Your task to perform on an android device: Go to Android settings Image 0: 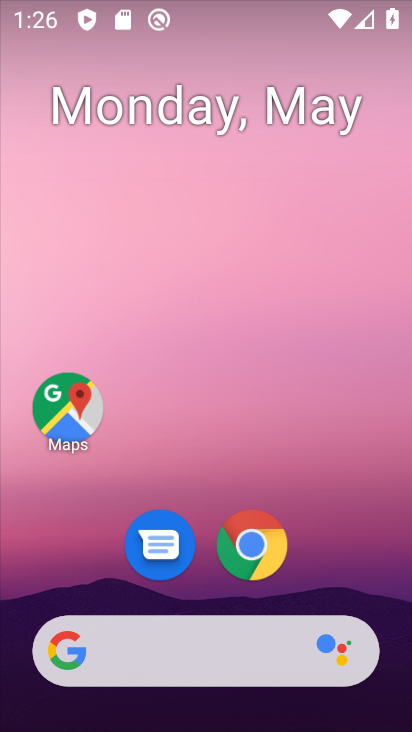
Step 0: drag from (196, 715) to (198, 101)
Your task to perform on an android device: Go to Android settings Image 1: 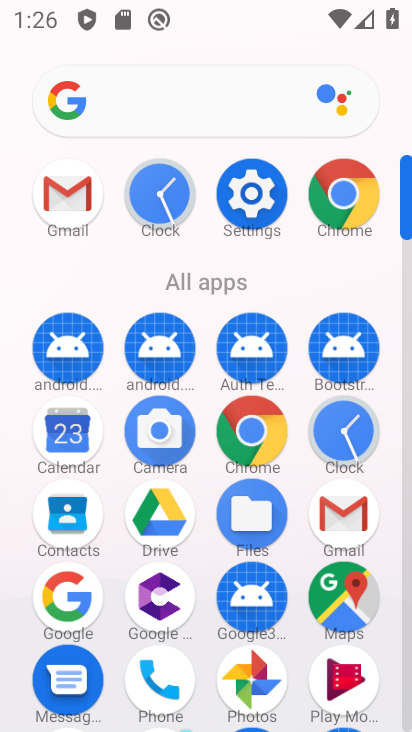
Step 1: click (261, 206)
Your task to perform on an android device: Go to Android settings Image 2: 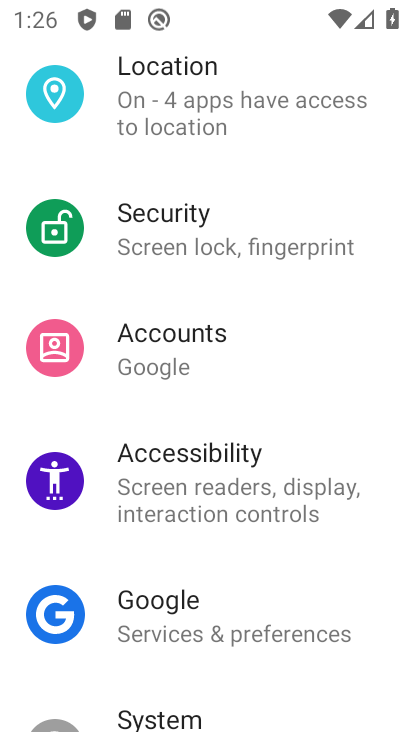
Step 2: drag from (207, 670) to (214, 151)
Your task to perform on an android device: Go to Android settings Image 3: 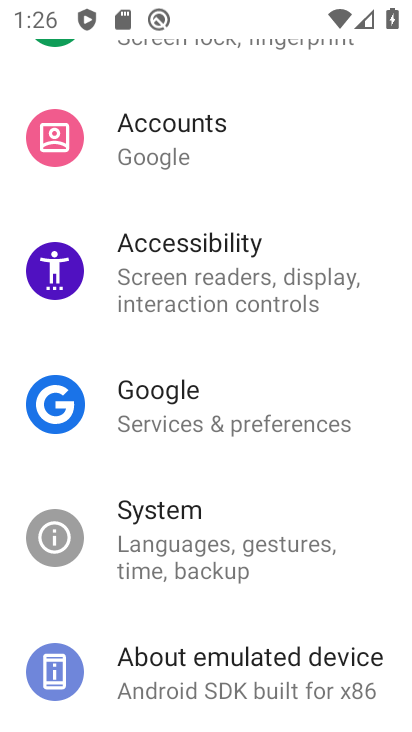
Step 3: click (267, 689)
Your task to perform on an android device: Go to Android settings Image 4: 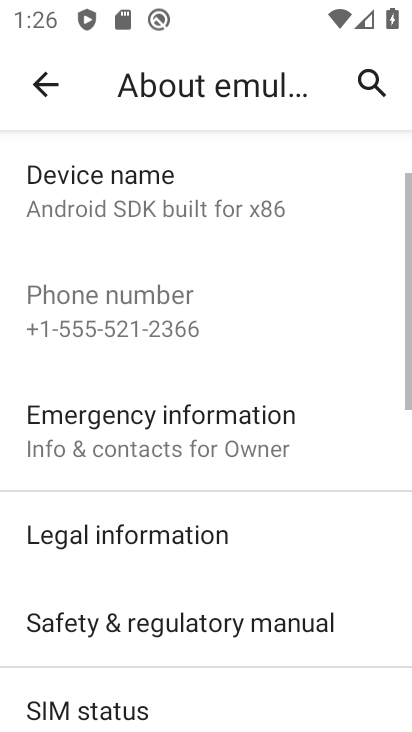
Step 4: task complete